Your task to perform on an android device: toggle notifications settings in the gmail app Image 0: 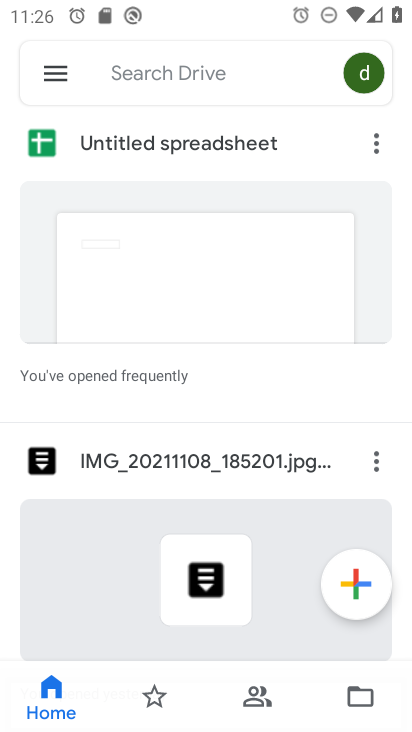
Step 0: press home button
Your task to perform on an android device: toggle notifications settings in the gmail app Image 1: 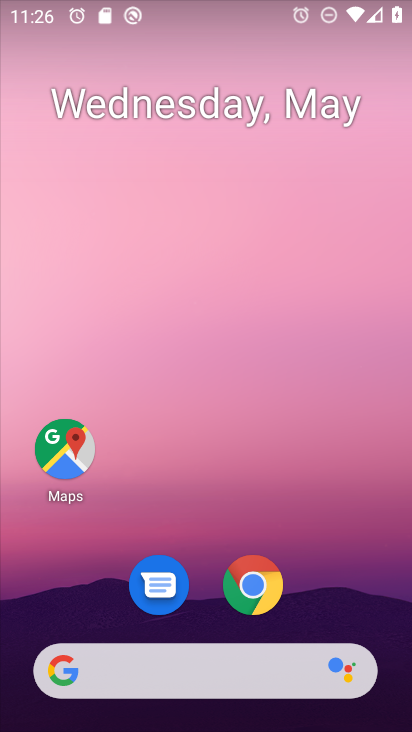
Step 1: drag from (291, 494) to (304, 19)
Your task to perform on an android device: toggle notifications settings in the gmail app Image 2: 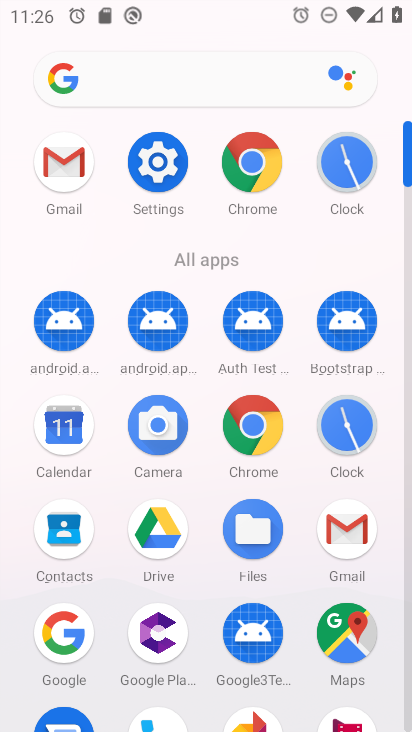
Step 2: click (64, 144)
Your task to perform on an android device: toggle notifications settings in the gmail app Image 3: 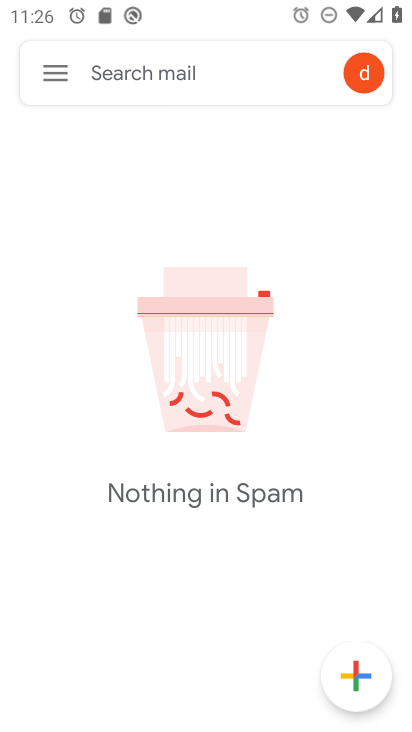
Step 3: click (49, 73)
Your task to perform on an android device: toggle notifications settings in the gmail app Image 4: 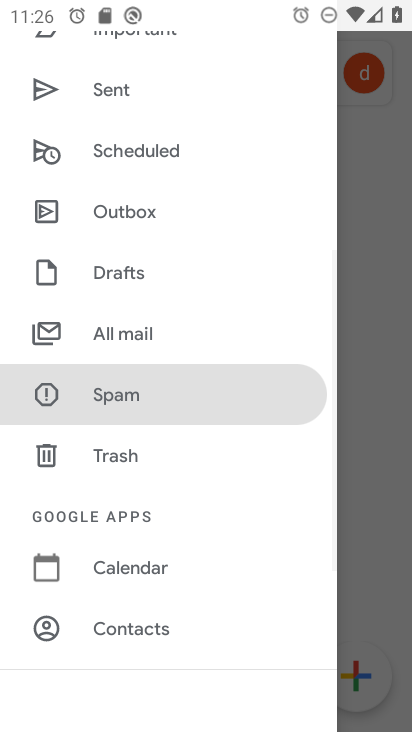
Step 4: drag from (188, 327) to (227, 51)
Your task to perform on an android device: toggle notifications settings in the gmail app Image 5: 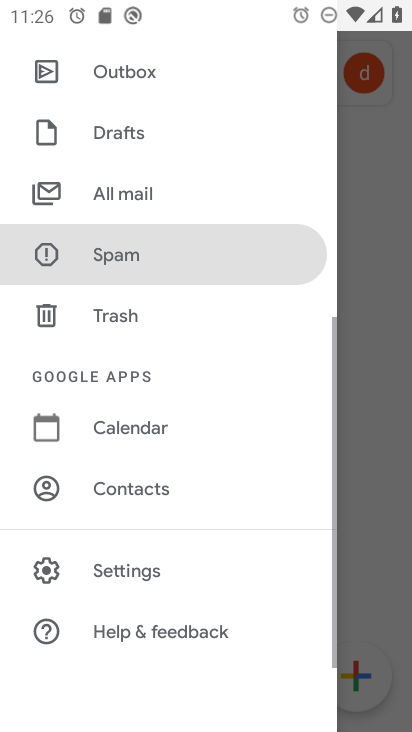
Step 5: click (178, 579)
Your task to perform on an android device: toggle notifications settings in the gmail app Image 6: 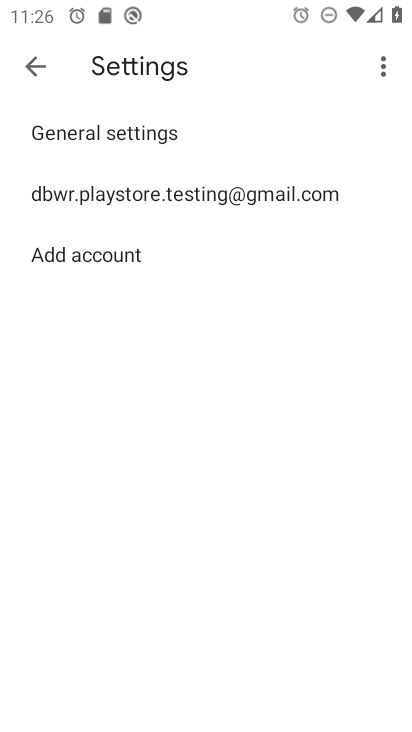
Step 6: click (144, 126)
Your task to perform on an android device: toggle notifications settings in the gmail app Image 7: 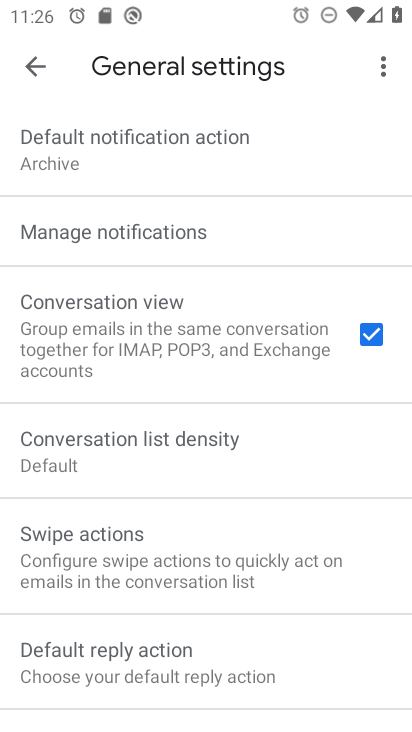
Step 7: click (185, 230)
Your task to perform on an android device: toggle notifications settings in the gmail app Image 8: 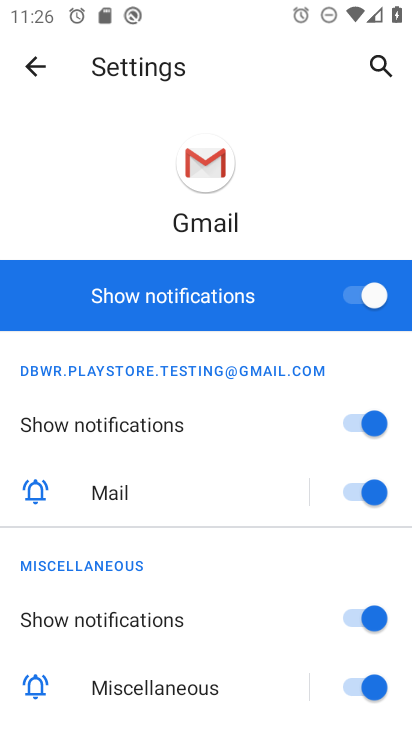
Step 8: click (354, 300)
Your task to perform on an android device: toggle notifications settings in the gmail app Image 9: 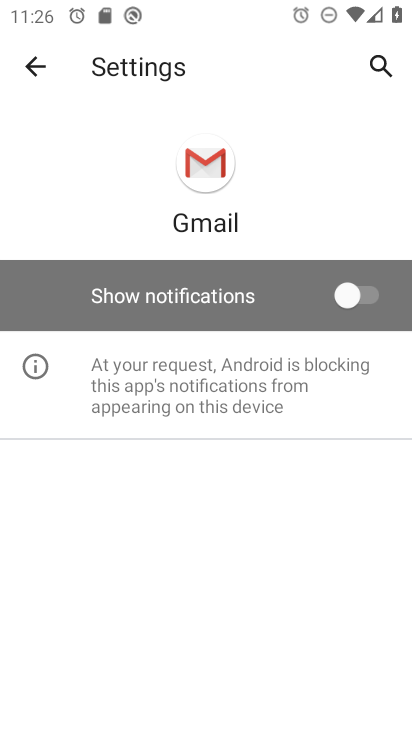
Step 9: task complete